Your task to perform on an android device: check android version Image 0: 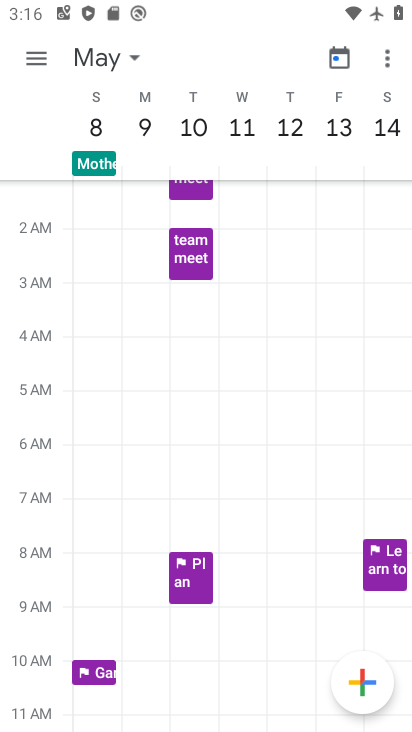
Step 0: press back button
Your task to perform on an android device: check android version Image 1: 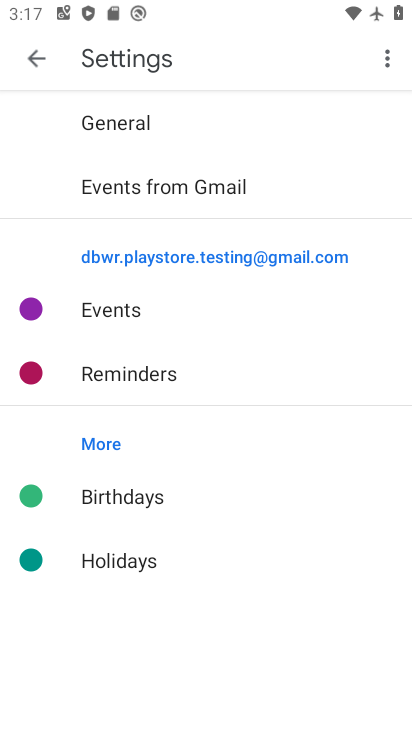
Step 1: press back button
Your task to perform on an android device: check android version Image 2: 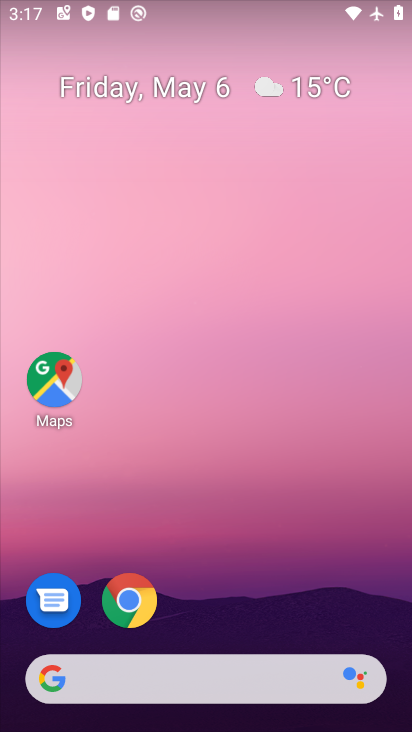
Step 2: drag from (287, 462) to (201, 9)
Your task to perform on an android device: check android version Image 3: 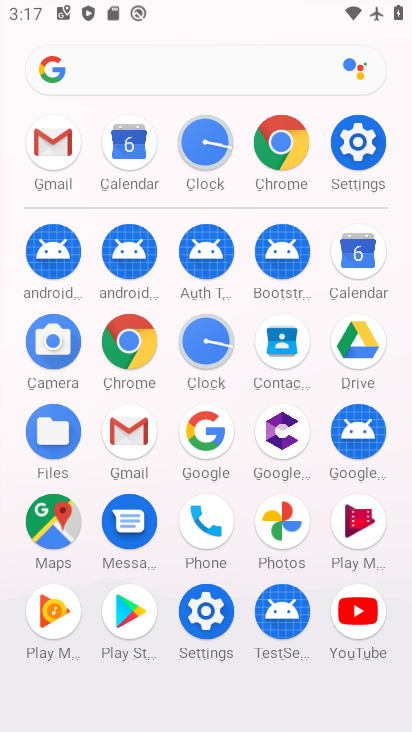
Step 3: click (207, 614)
Your task to perform on an android device: check android version Image 4: 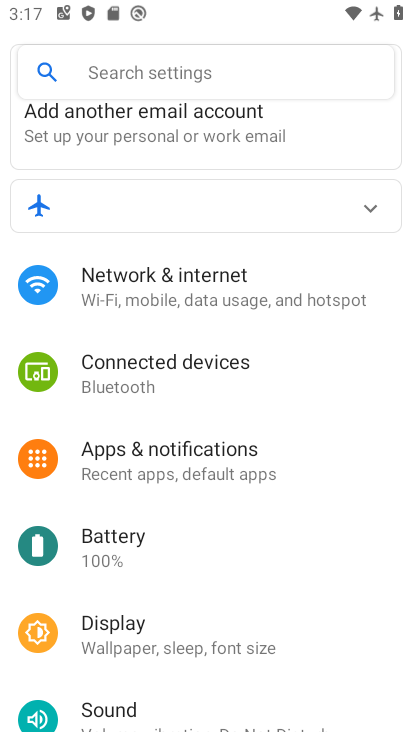
Step 4: drag from (281, 634) to (281, 138)
Your task to perform on an android device: check android version Image 5: 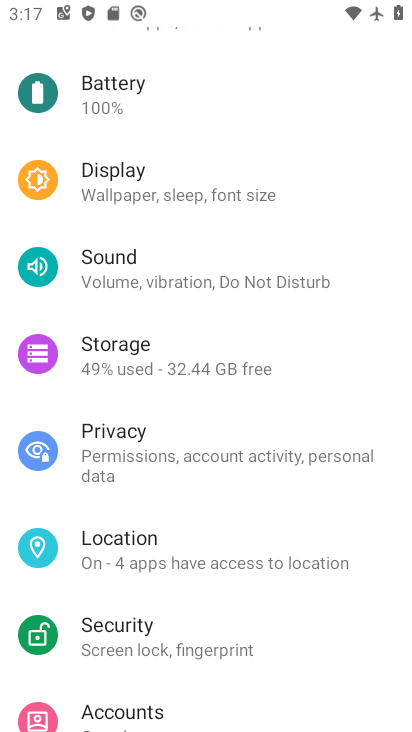
Step 5: drag from (279, 635) to (326, 85)
Your task to perform on an android device: check android version Image 6: 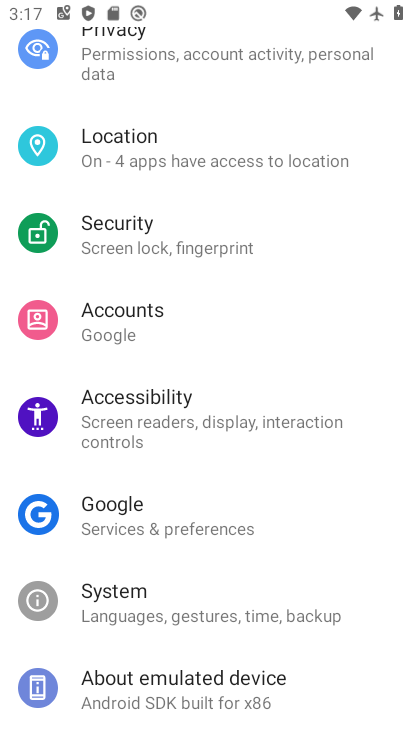
Step 6: drag from (286, 606) to (277, 129)
Your task to perform on an android device: check android version Image 7: 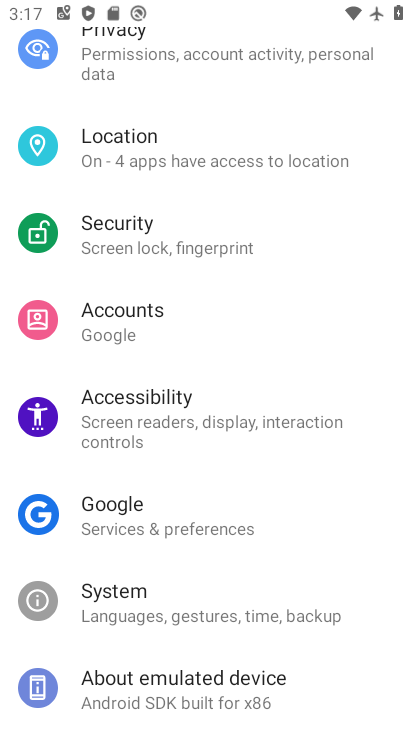
Step 7: click (227, 691)
Your task to perform on an android device: check android version Image 8: 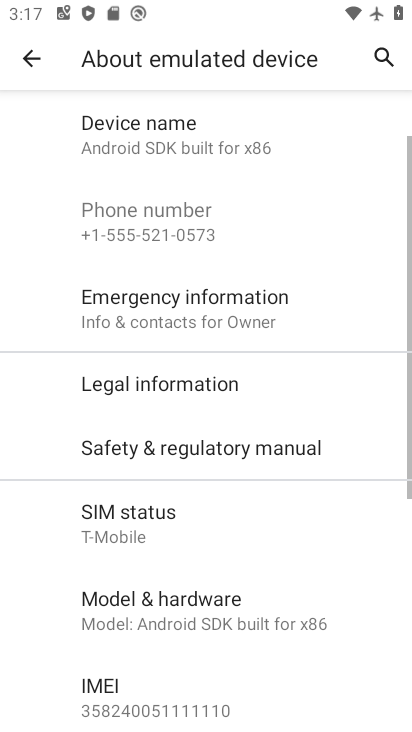
Step 8: drag from (294, 598) to (349, 179)
Your task to perform on an android device: check android version Image 9: 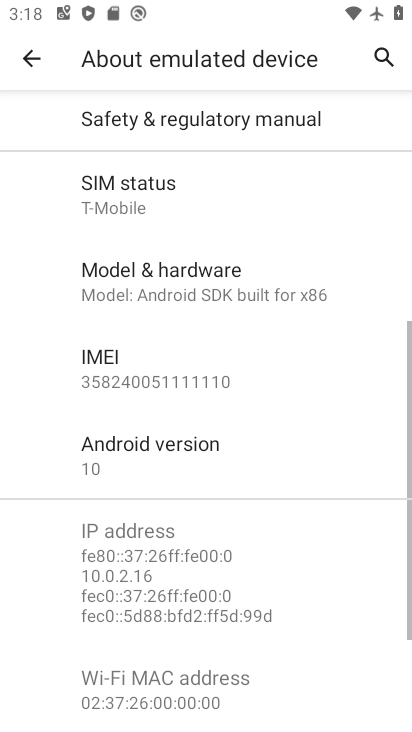
Step 9: click (252, 453)
Your task to perform on an android device: check android version Image 10: 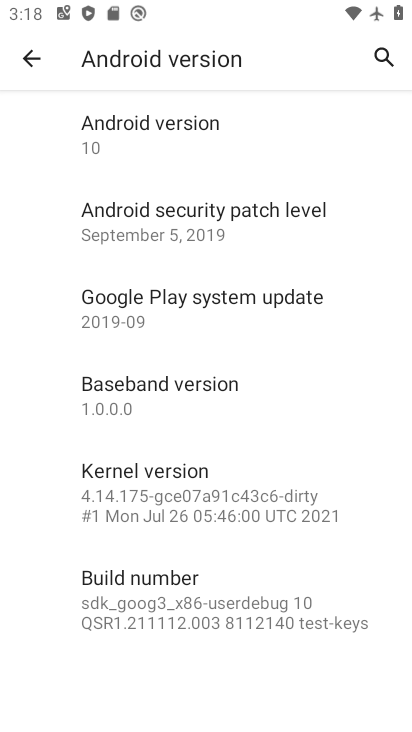
Step 10: task complete